Your task to perform on an android device: Open calendar and show me the fourth week of next month Image 0: 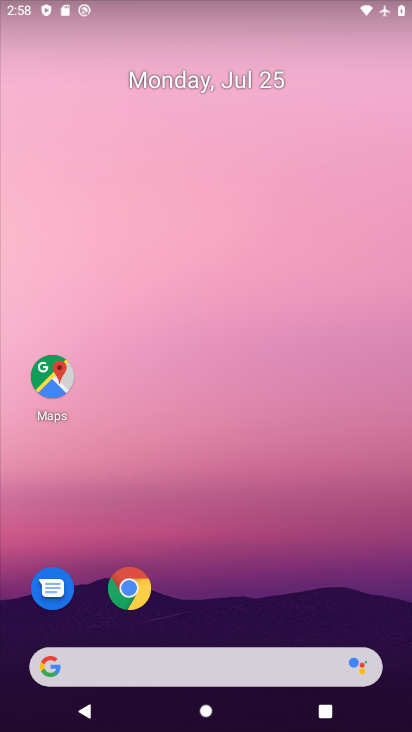
Step 0: drag from (239, 724) to (224, 63)
Your task to perform on an android device: Open calendar and show me the fourth week of next month Image 1: 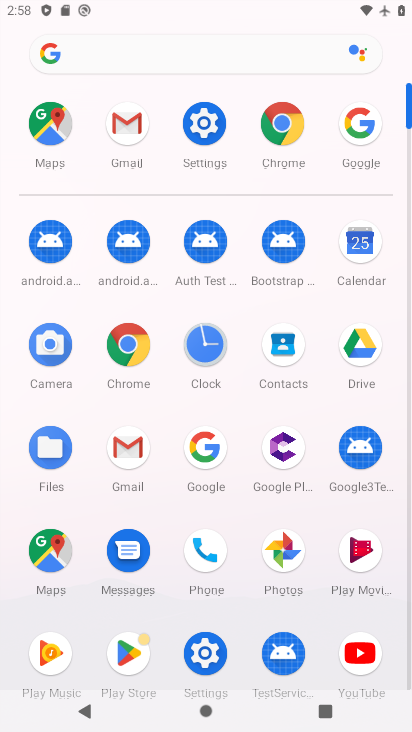
Step 1: click (361, 240)
Your task to perform on an android device: Open calendar and show me the fourth week of next month Image 2: 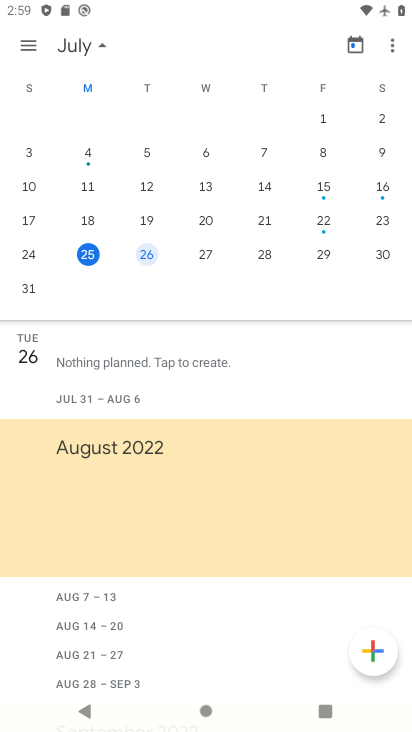
Step 2: drag from (291, 194) to (91, 200)
Your task to perform on an android device: Open calendar and show me the fourth week of next month Image 3: 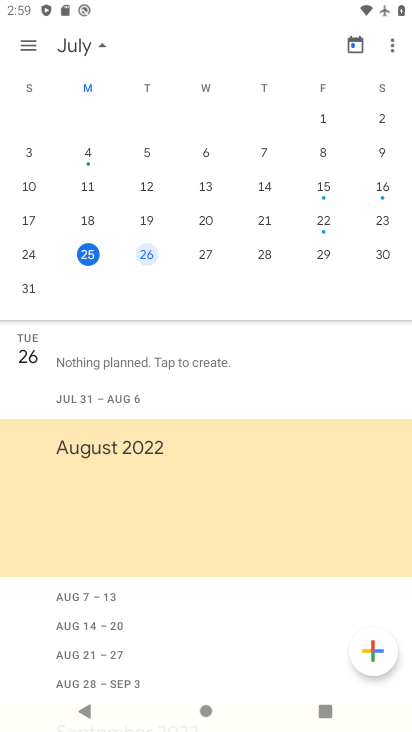
Step 3: drag from (386, 187) to (0, 184)
Your task to perform on an android device: Open calendar and show me the fourth week of next month Image 4: 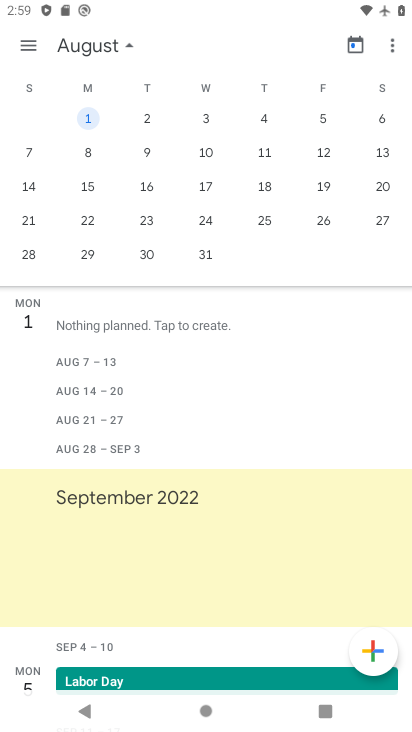
Step 4: click (85, 221)
Your task to perform on an android device: Open calendar and show me the fourth week of next month Image 5: 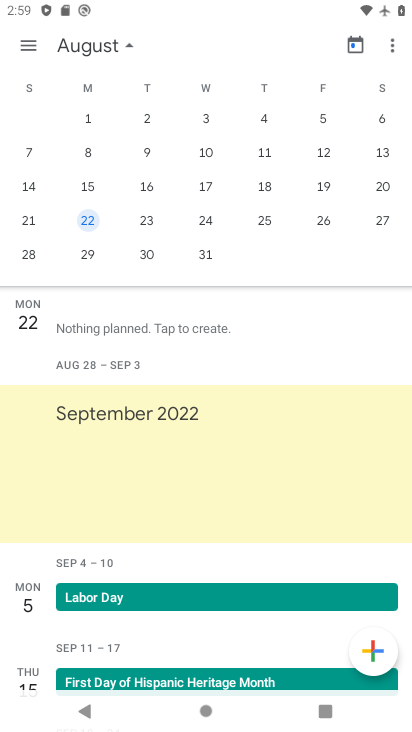
Step 5: click (21, 38)
Your task to perform on an android device: Open calendar and show me the fourth week of next month Image 6: 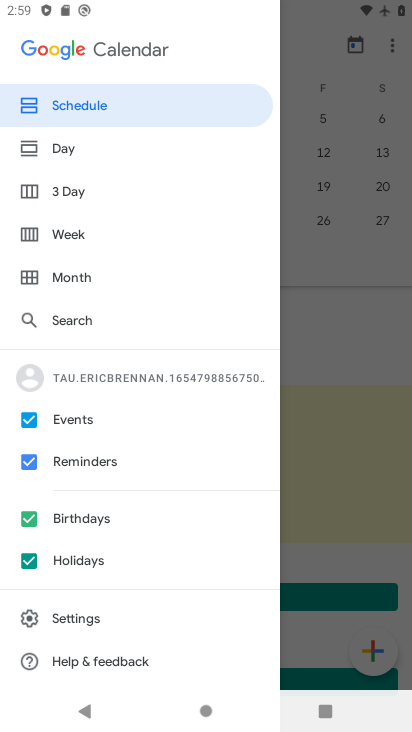
Step 6: click (69, 231)
Your task to perform on an android device: Open calendar and show me the fourth week of next month Image 7: 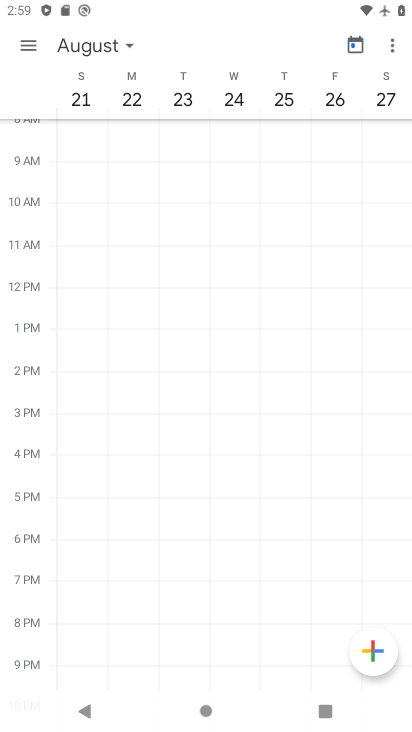
Step 7: task complete